Your task to perform on an android device: open app "Pluto TV - Live TV and Movies" Image 0: 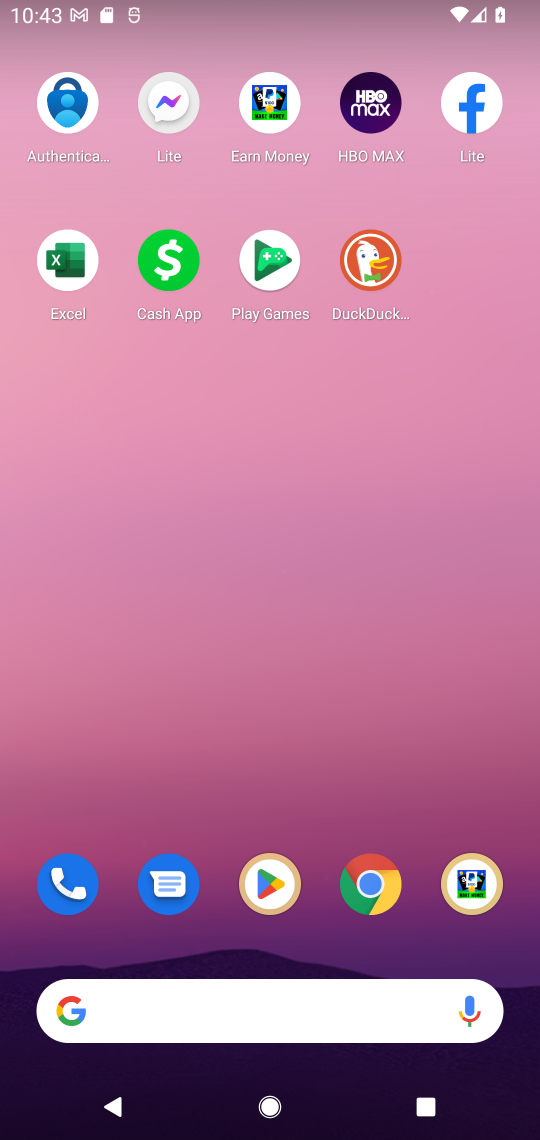
Step 0: drag from (197, 1010) to (146, 147)
Your task to perform on an android device: open app "Pluto TV - Live TV and Movies" Image 1: 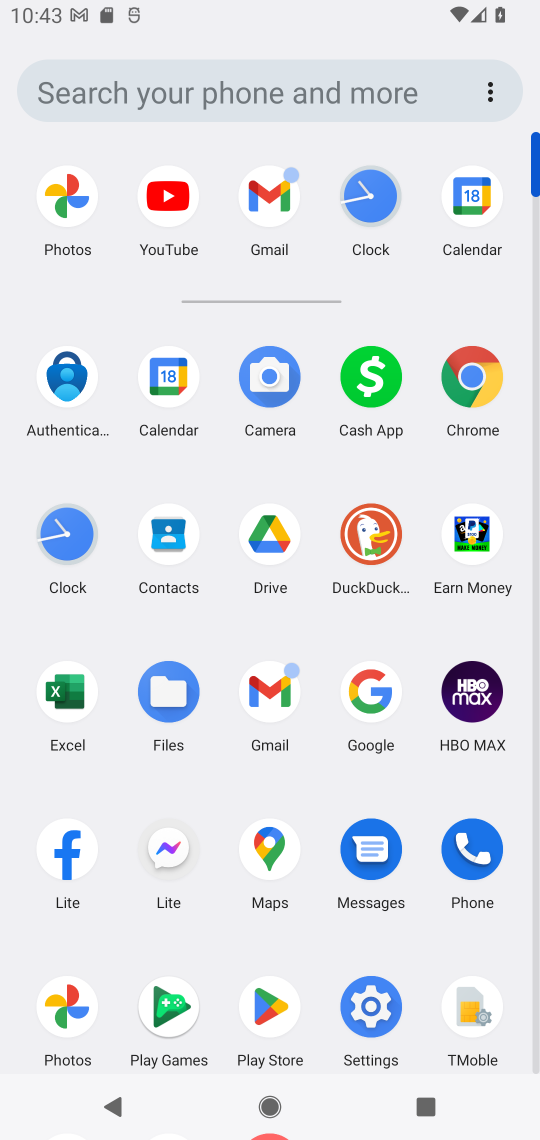
Step 1: click (267, 1005)
Your task to perform on an android device: open app "Pluto TV - Live TV and Movies" Image 2: 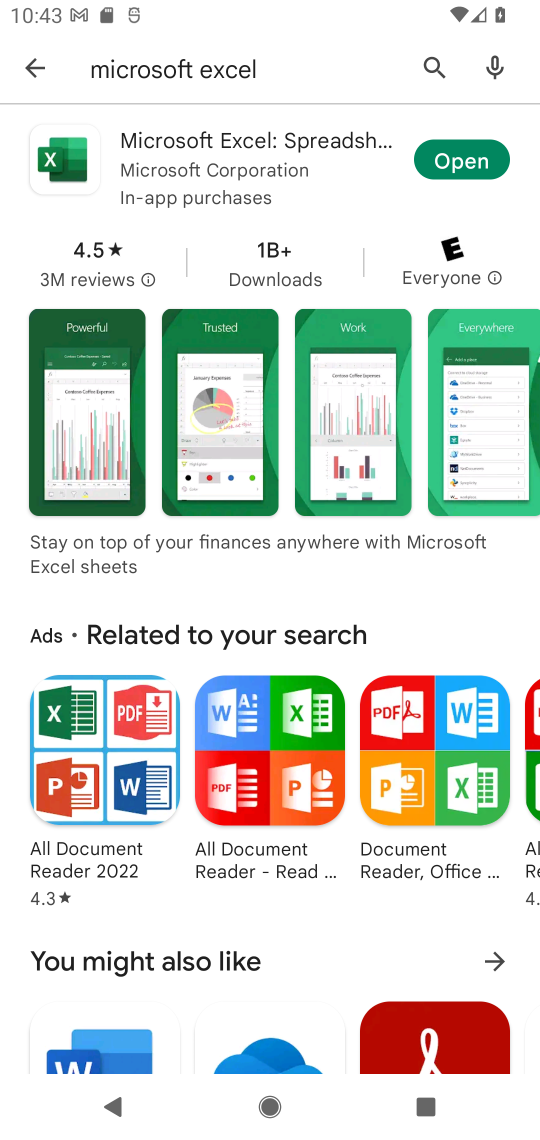
Step 2: press back button
Your task to perform on an android device: open app "Pluto TV - Live TV and Movies" Image 3: 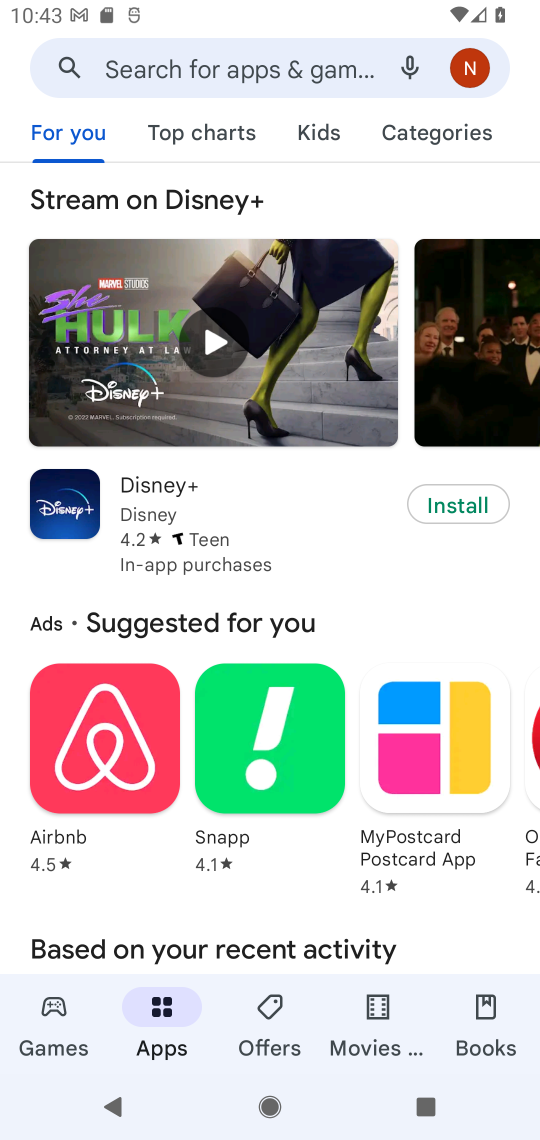
Step 3: click (234, 59)
Your task to perform on an android device: open app "Pluto TV - Live TV and Movies" Image 4: 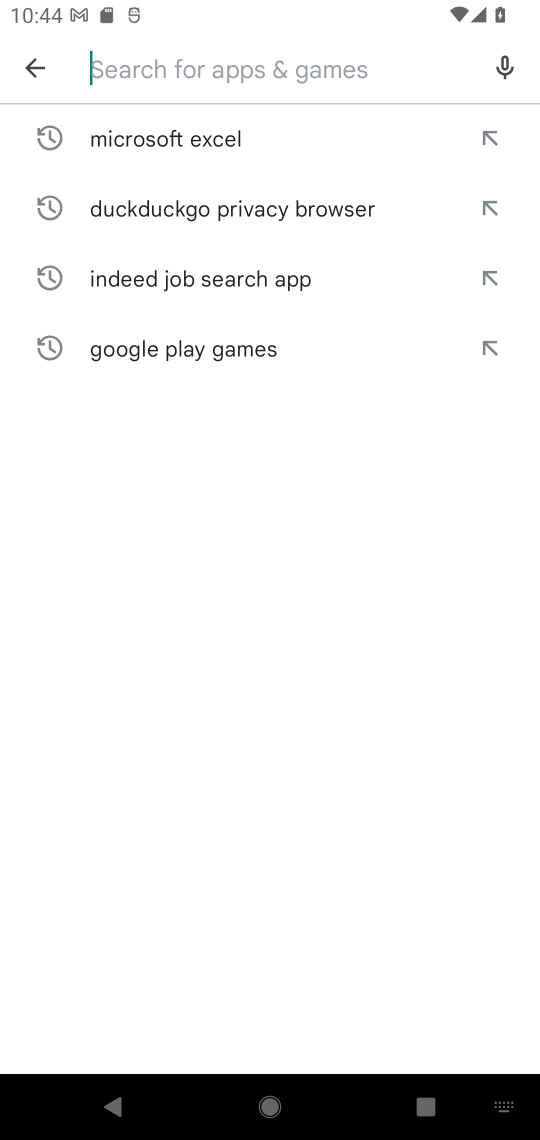
Step 4: type "Pluto TV - Live TV and Movies"
Your task to perform on an android device: open app "Pluto TV - Live TV and Movies" Image 5: 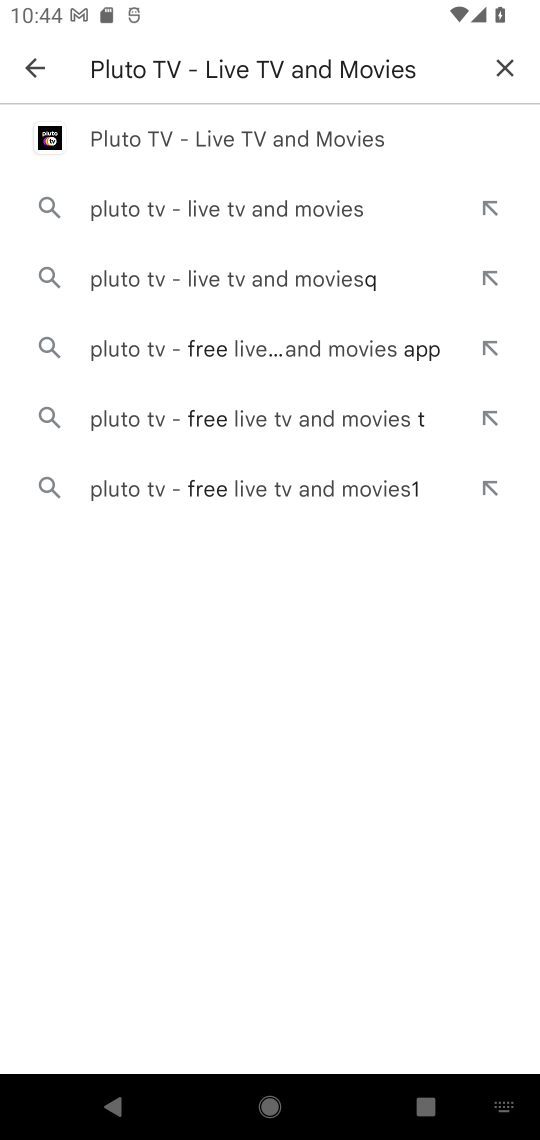
Step 5: click (188, 138)
Your task to perform on an android device: open app "Pluto TV - Live TV and Movies" Image 6: 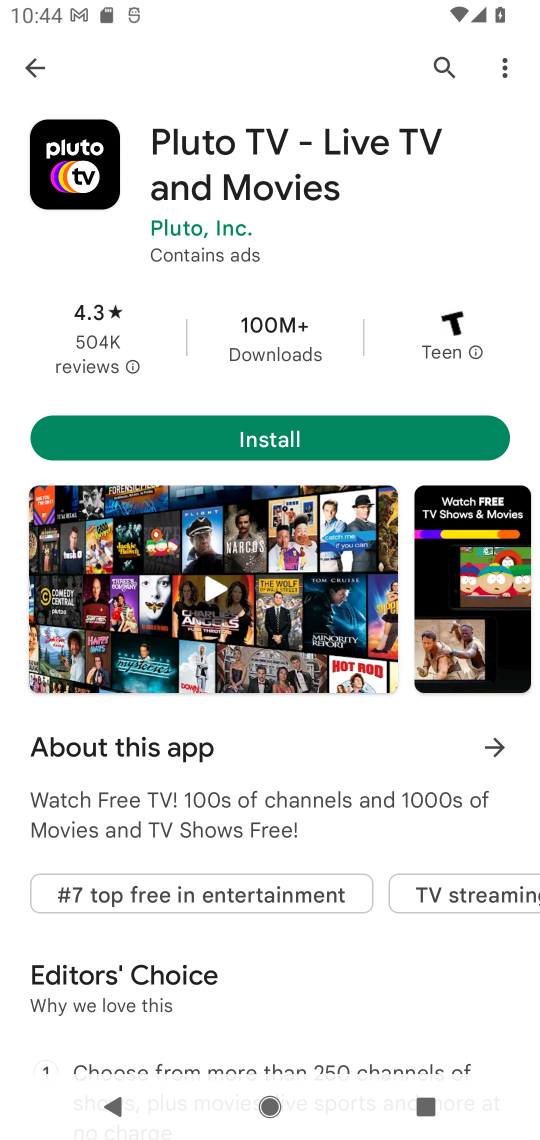
Step 6: task complete